Your task to perform on an android device: turn off improve location accuracy Image 0: 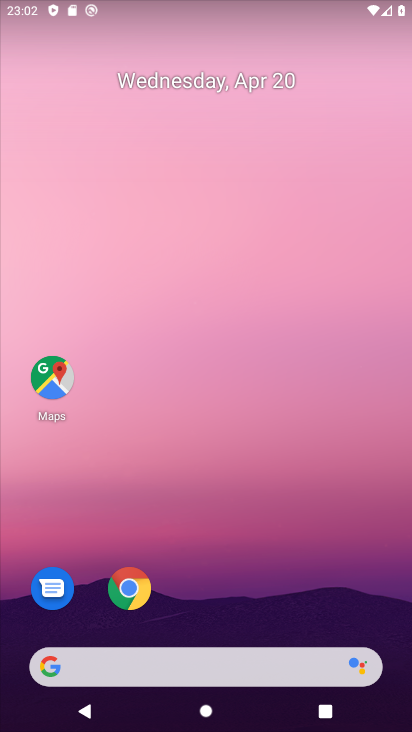
Step 0: drag from (164, 627) to (289, 95)
Your task to perform on an android device: turn off improve location accuracy Image 1: 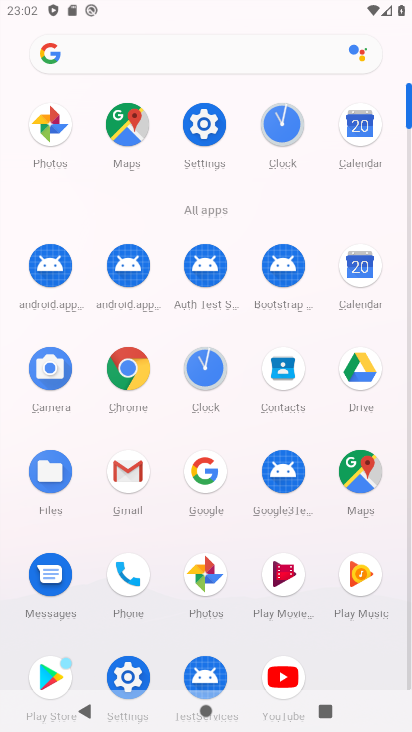
Step 1: click (122, 674)
Your task to perform on an android device: turn off improve location accuracy Image 2: 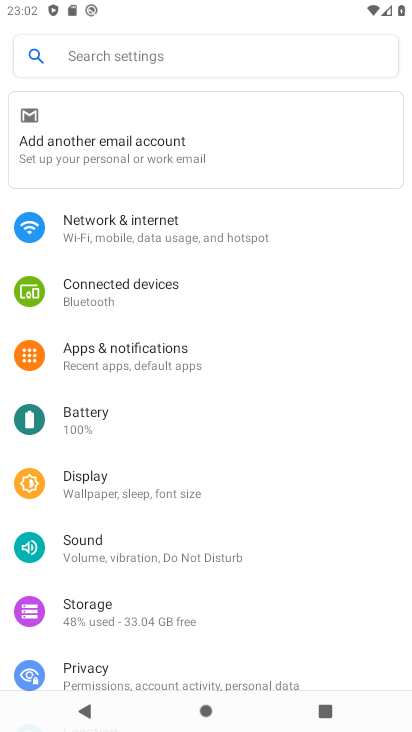
Step 2: drag from (134, 647) to (197, 305)
Your task to perform on an android device: turn off improve location accuracy Image 3: 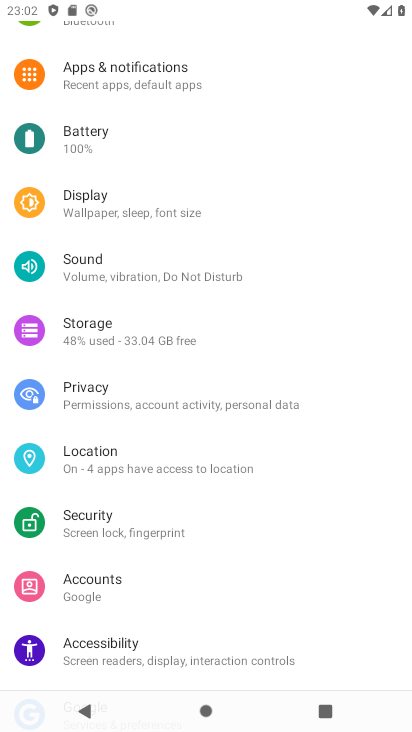
Step 3: click (141, 463)
Your task to perform on an android device: turn off improve location accuracy Image 4: 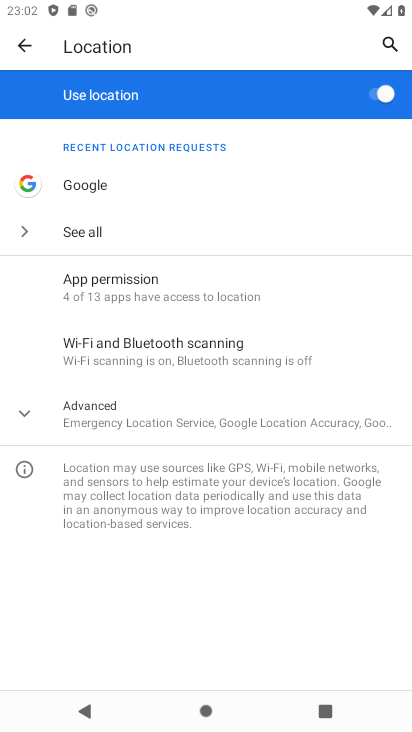
Step 4: click (174, 419)
Your task to perform on an android device: turn off improve location accuracy Image 5: 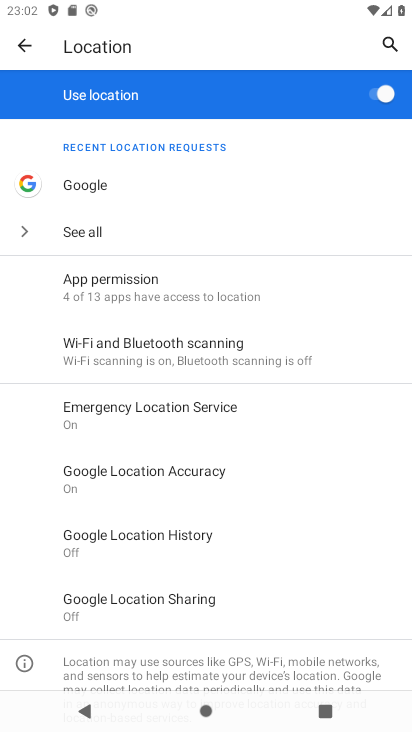
Step 5: click (219, 481)
Your task to perform on an android device: turn off improve location accuracy Image 6: 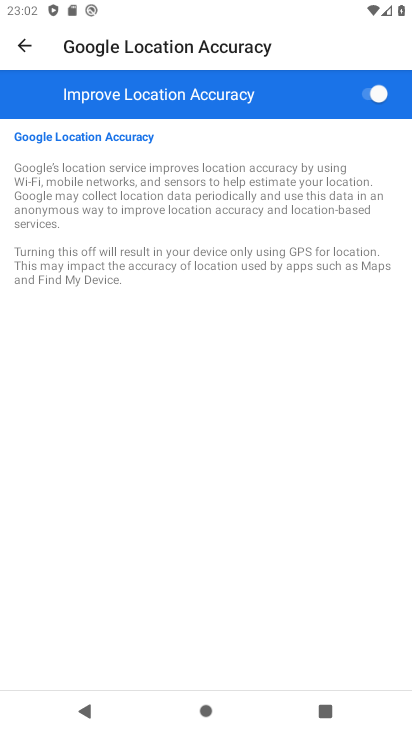
Step 6: click (369, 96)
Your task to perform on an android device: turn off improve location accuracy Image 7: 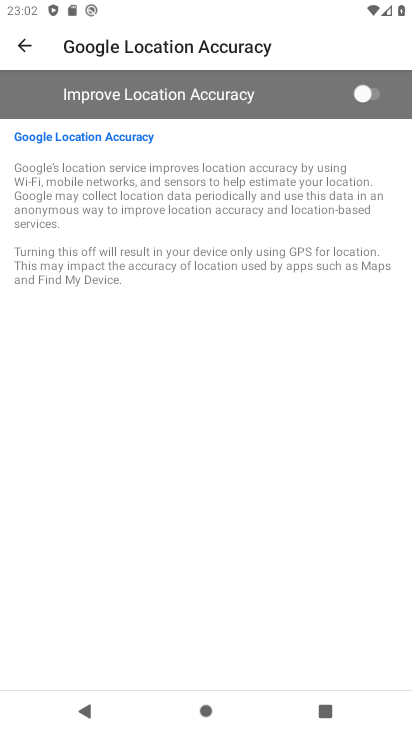
Step 7: task complete